Your task to perform on an android device: toggle airplane mode Image 0: 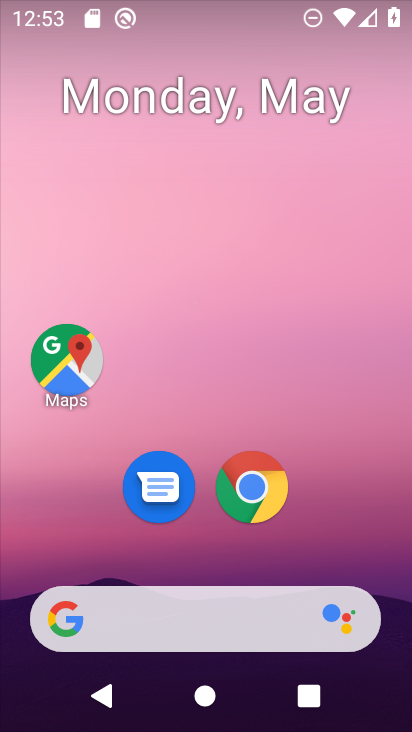
Step 0: drag from (326, 549) to (166, 86)
Your task to perform on an android device: toggle airplane mode Image 1: 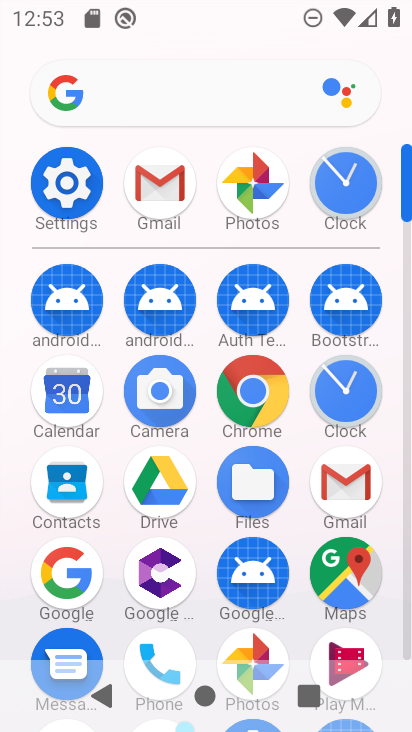
Step 1: click (69, 182)
Your task to perform on an android device: toggle airplane mode Image 2: 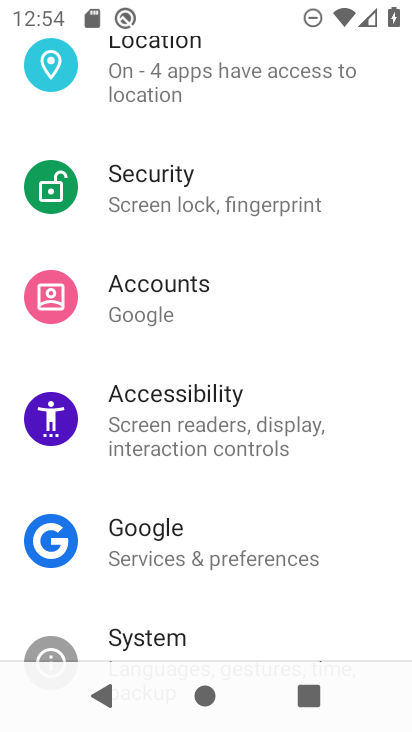
Step 2: drag from (191, 263) to (172, 360)
Your task to perform on an android device: toggle airplane mode Image 3: 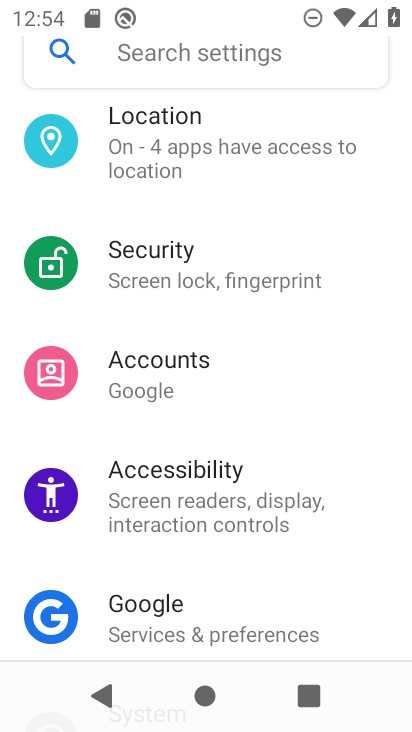
Step 3: drag from (207, 213) to (236, 351)
Your task to perform on an android device: toggle airplane mode Image 4: 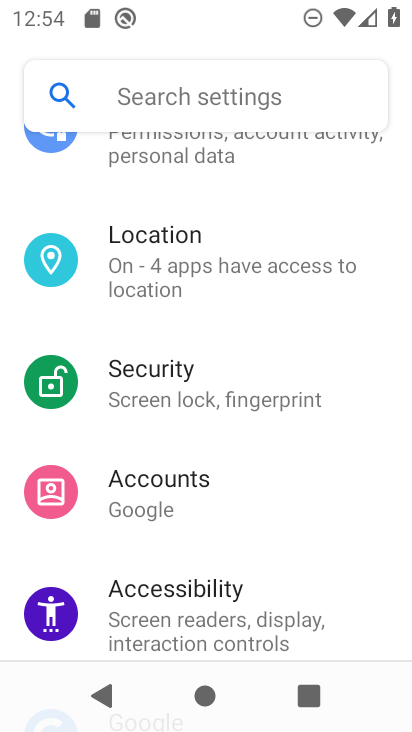
Step 4: drag from (298, 188) to (259, 368)
Your task to perform on an android device: toggle airplane mode Image 5: 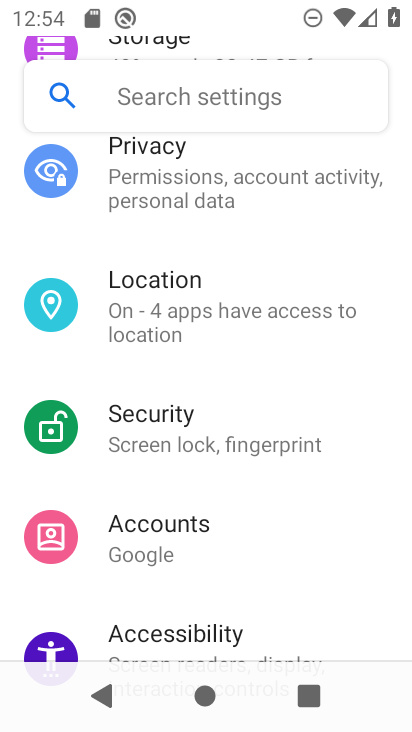
Step 5: drag from (270, 216) to (266, 377)
Your task to perform on an android device: toggle airplane mode Image 6: 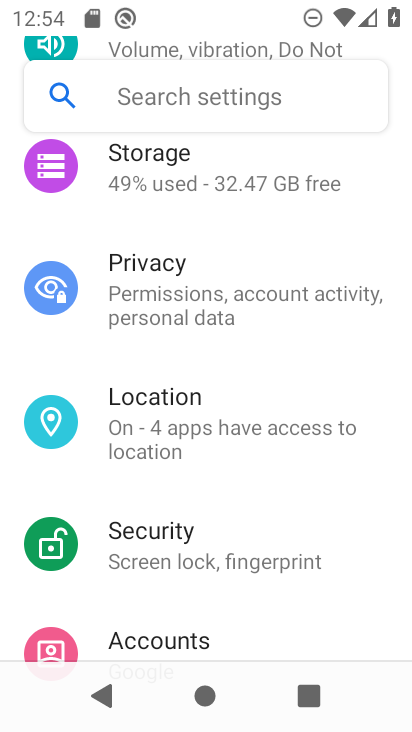
Step 6: drag from (267, 221) to (274, 380)
Your task to perform on an android device: toggle airplane mode Image 7: 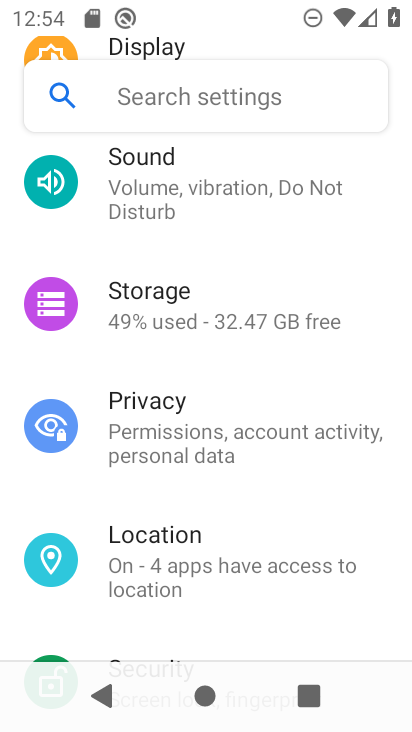
Step 7: drag from (270, 238) to (279, 447)
Your task to perform on an android device: toggle airplane mode Image 8: 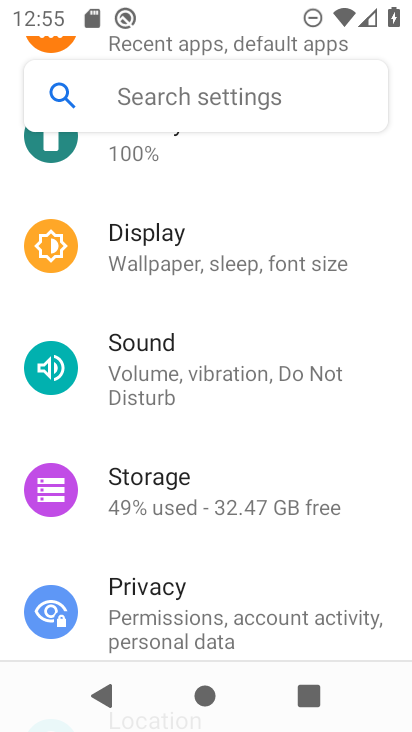
Step 8: drag from (287, 169) to (270, 382)
Your task to perform on an android device: toggle airplane mode Image 9: 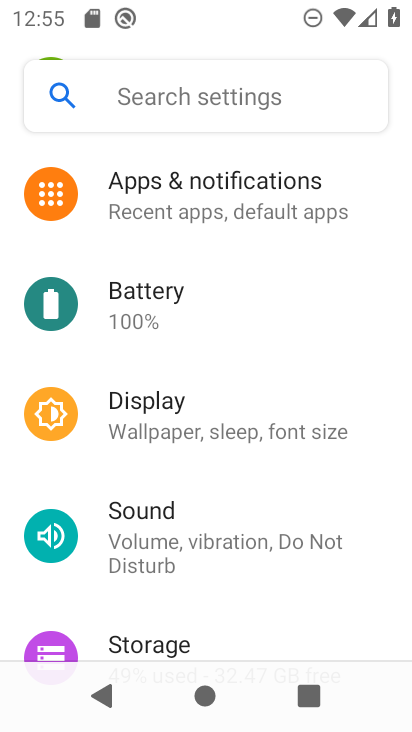
Step 9: drag from (217, 258) to (238, 491)
Your task to perform on an android device: toggle airplane mode Image 10: 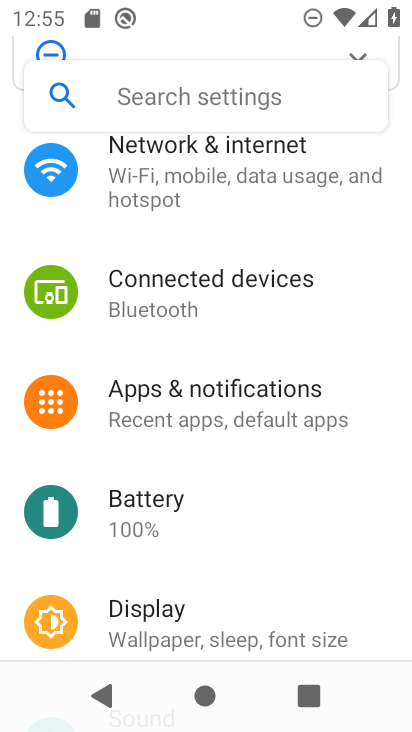
Step 10: click (215, 151)
Your task to perform on an android device: toggle airplane mode Image 11: 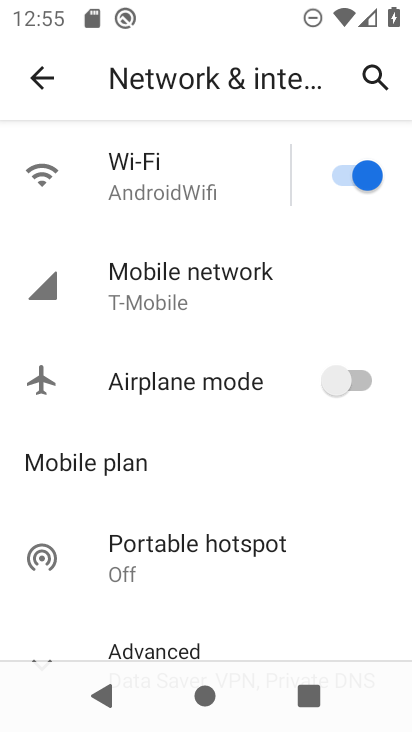
Step 11: click (342, 387)
Your task to perform on an android device: toggle airplane mode Image 12: 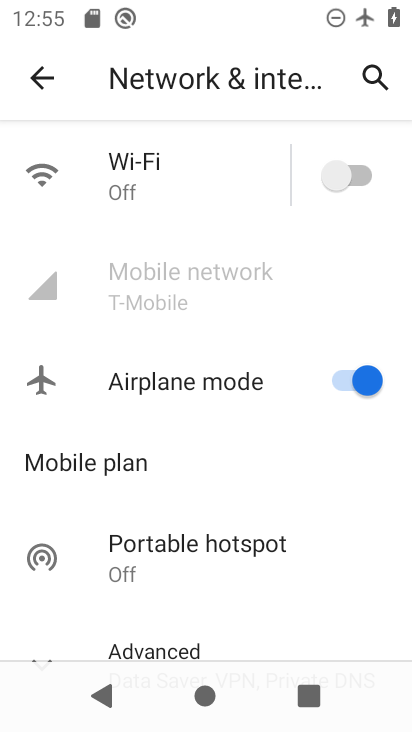
Step 12: task complete